Your task to perform on an android device: turn on wifi Image 0: 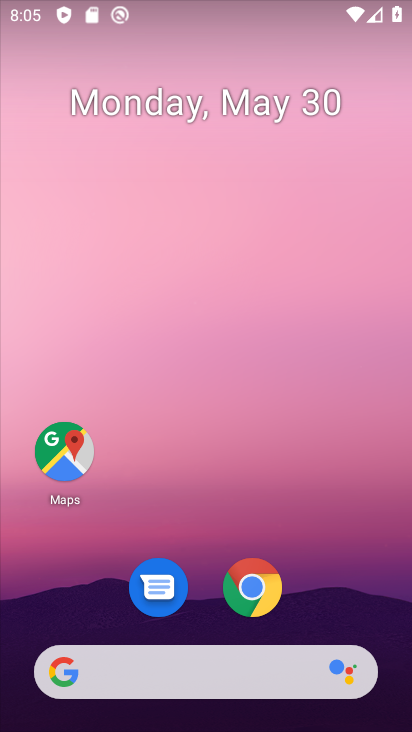
Step 0: drag from (201, 546) to (252, 2)
Your task to perform on an android device: turn on wifi Image 1: 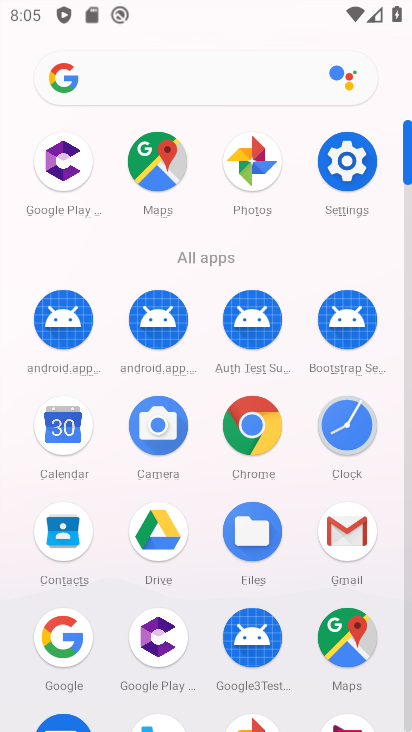
Step 1: click (338, 156)
Your task to perform on an android device: turn on wifi Image 2: 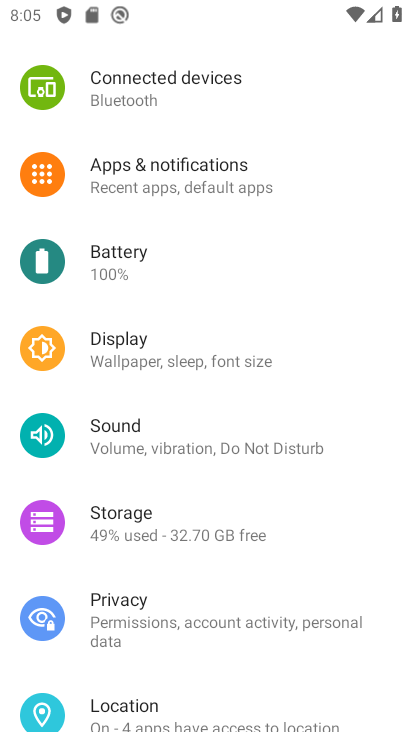
Step 2: drag from (249, 92) to (205, 383)
Your task to perform on an android device: turn on wifi Image 3: 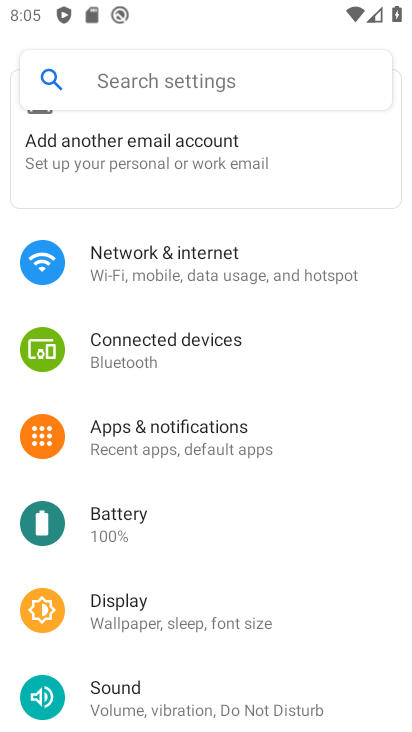
Step 3: click (219, 269)
Your task to perform on an android device: turn on wifi Image 4: 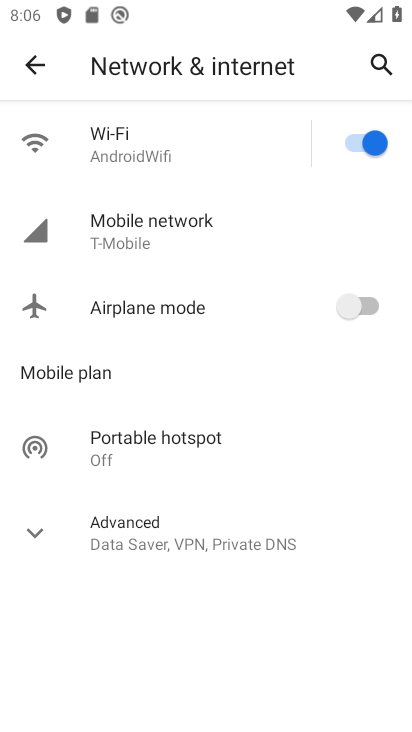
Step 4: task complete